Your task to perform on an android device: turn off sleep mode Image 0: 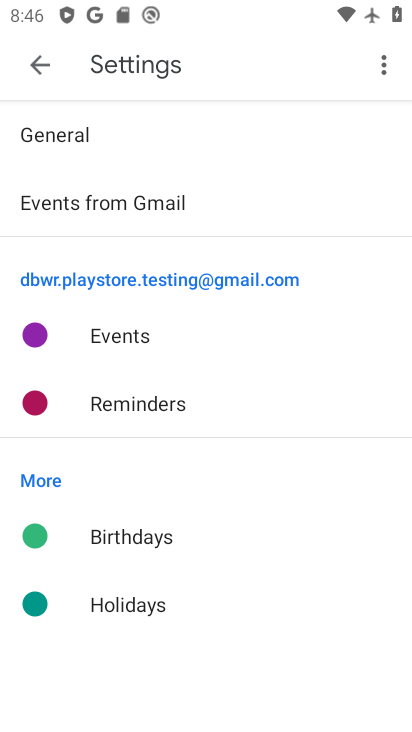
Step 0: press home button
Your task to perform on an android device: turn off sleep mode Image 1: 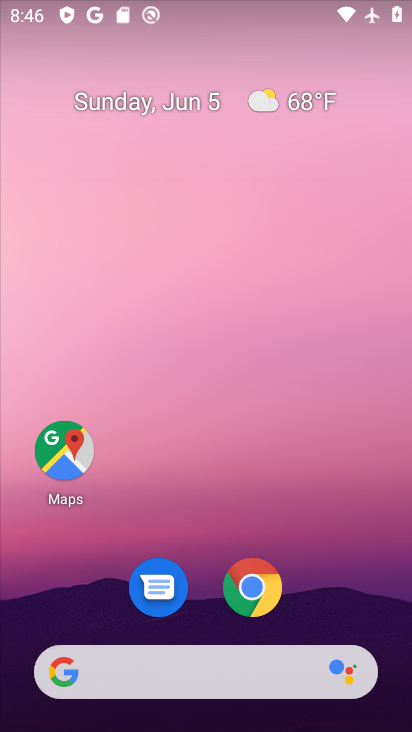
Step 1: drag from (360, 579) to (249, 125)
Your task to perform on an android device: turn off sleep mode Image 2: 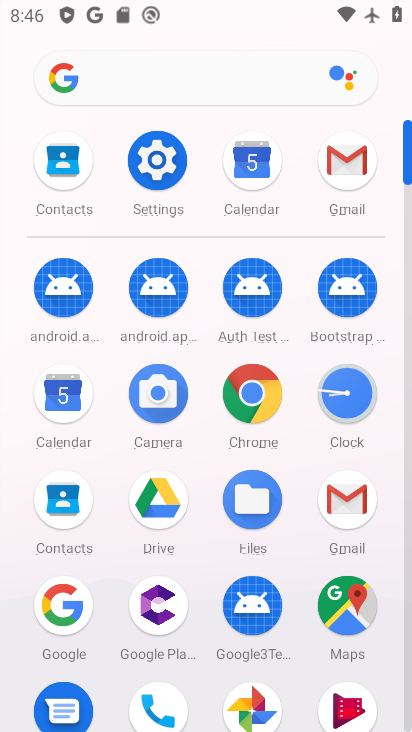
Step 2: click (164, 143)
Your task to perform on an android device: turn off sleep mode Image 3: 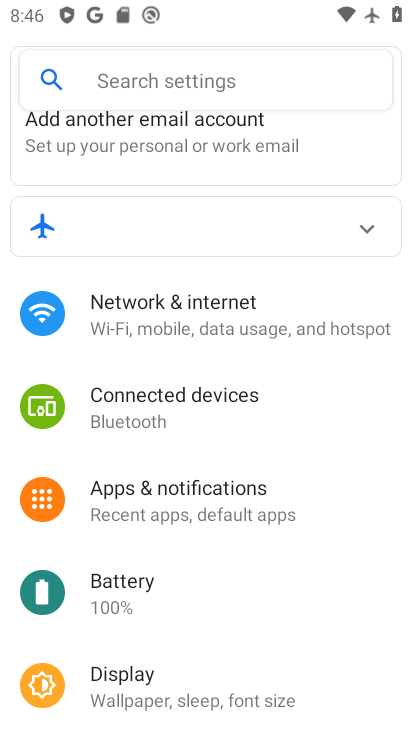
Step 3: task complete